Your task to perform on an android device: turn off location history Image 0: 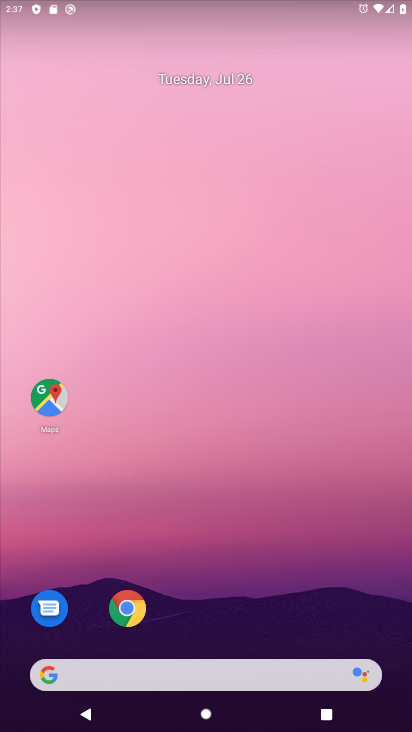
Step 0: drag from (239, 608) to (132, 40)
Your task to perform on an android device: turn off location history Image 1: 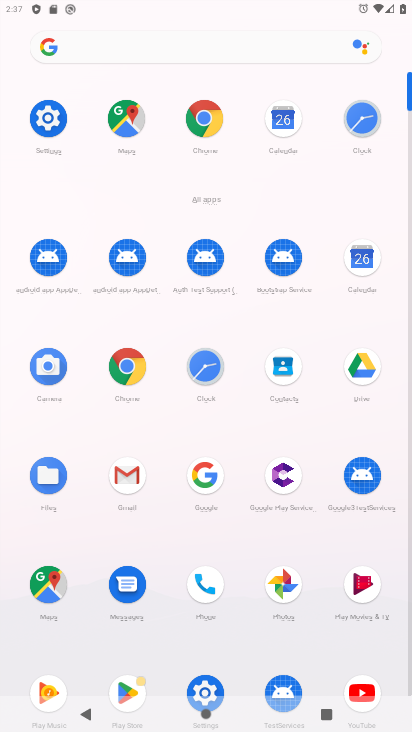
Step 1: click (55, 114)
Your task to perform on an android device: turn off location history Image 2: 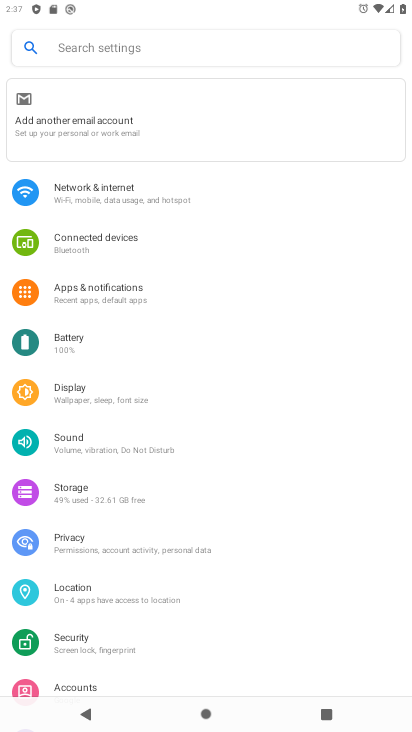
Step 2: click (103, 599)
Your task to perform on an android device: turn off location history Image 3: 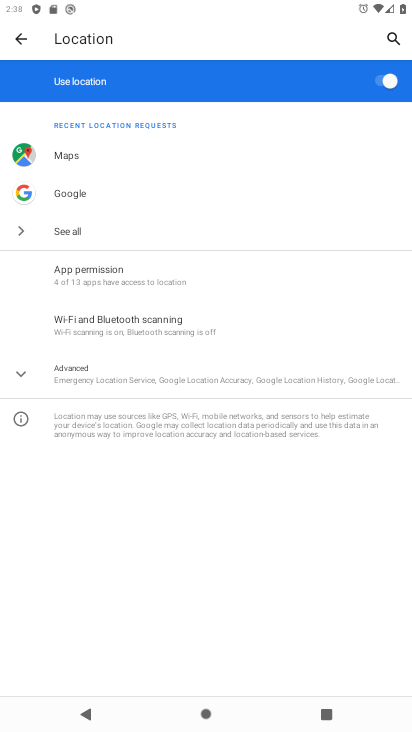
Step 3: click (273, 372)
Your task to perform on an android device: turn off location history Image 4: 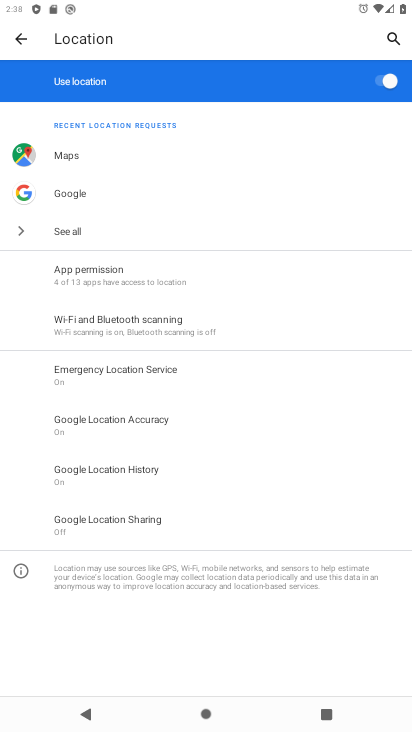
Step 4: click (169, 465)
Your task to perform on an android device: turn off location history Image 5: 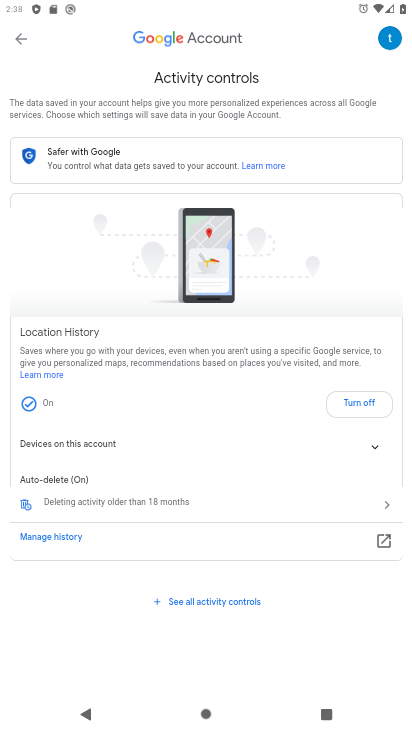
Step 5: click (362, 404)
Your task to perform on an android device: turn off location history Image 6: 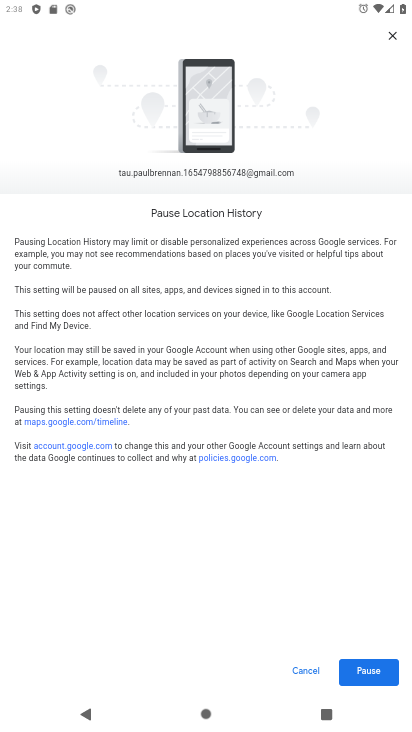
Step 6: click (378, 671)
Your task to perform on an android device: turn off location history Image 7: 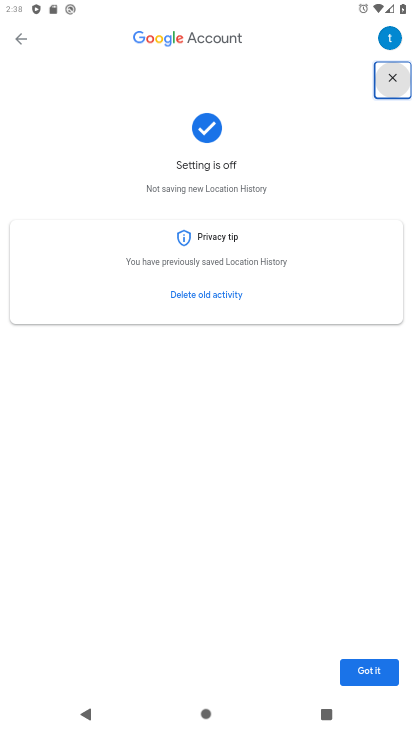
Step 7: click (373, 667)
Your task to perform on an android device: turn off location history Image 8: 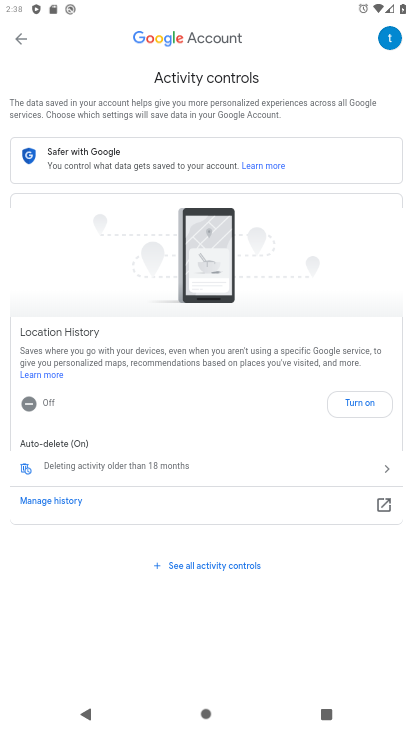
Step 8: task complete